Your task to perform on an android device: open the mobile data screen to see how much data has been used Image 0: 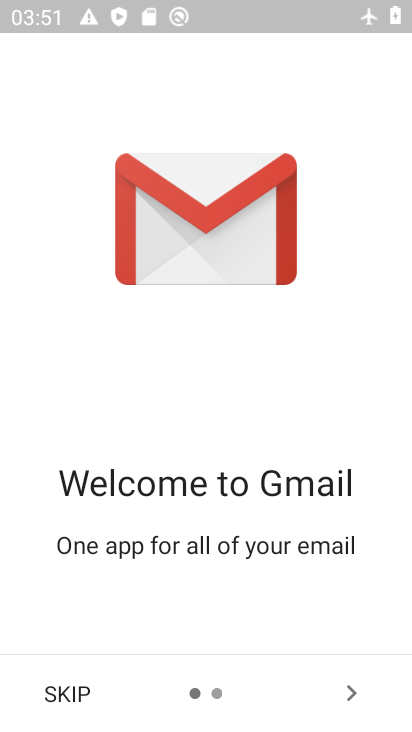
Step 0: press back button
Your task to perform on an android device: open the mobile data screen to see how much data has been used Image 1: 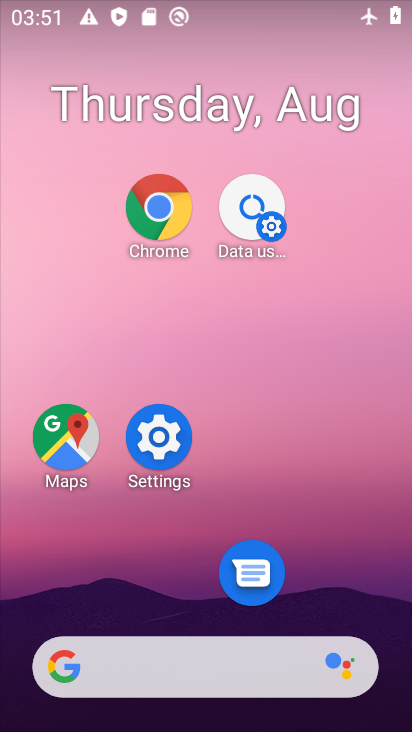
Step 1: drag from (210, 423) to (151, 176)
Your task to perform on an android device: open the mobile data screen to see how much data has been used Image 2: 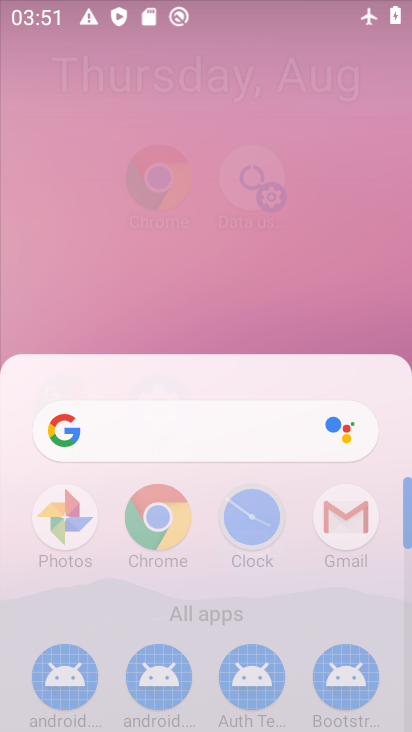
Step 2: drag from (179, 535) to (152, 159)
Your task to perform on an android device: open the mobile data screen to see how much data has been used Image 3: 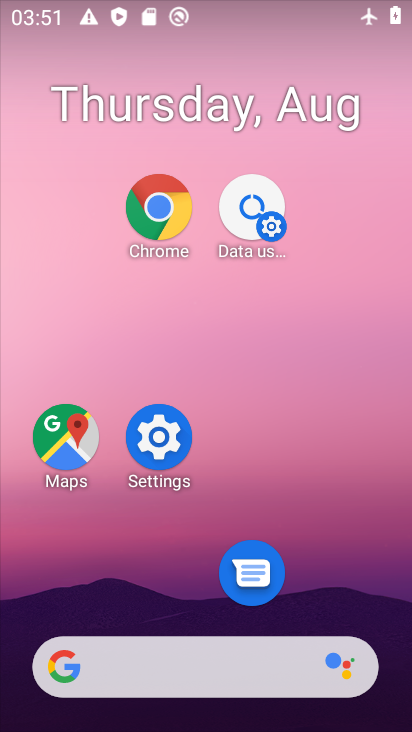
Step 3: drag from (190, 616) to (130, 228)
Your task to perform on an android device: open the mobile data screen to see how much data has been used Image 4: 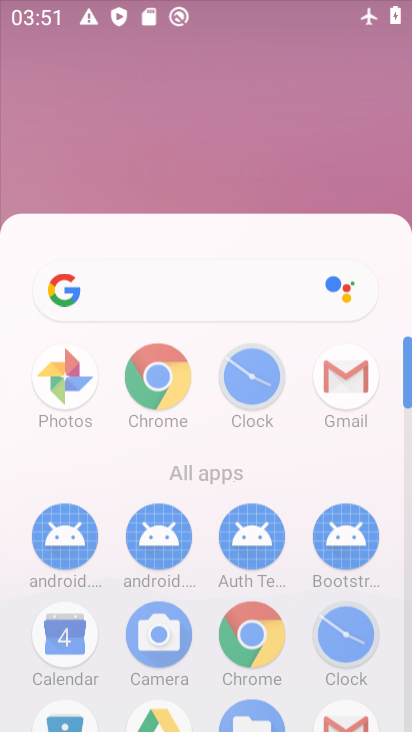
Step 4: drag from (143, 559) to (110, 437)
Your task to perform on an android device: open the mobile data screen to see how much data has been used Image 5: 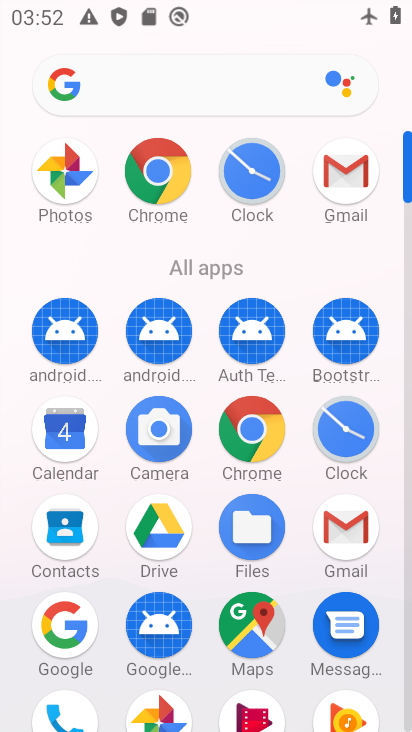
Step 5: drag from (188, 593) to (173, 119)
Your task to perform on an android device: open the mobile data screen to see how much data has been used Image 6: 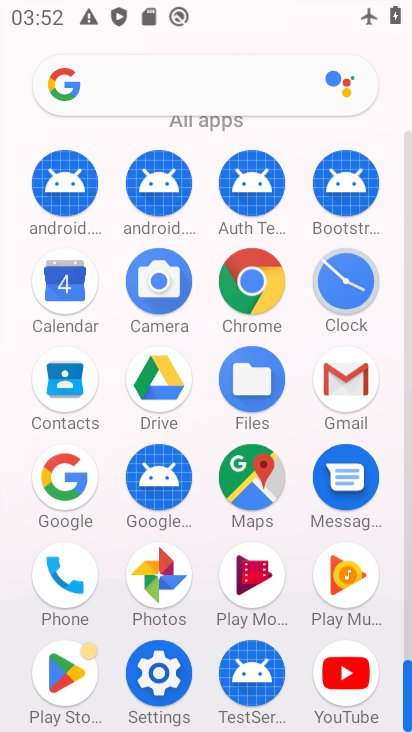
Step 6: click (208, 231)
Your task to perform on an android device: open the mobile data screen to see how much data has been used Image 7: 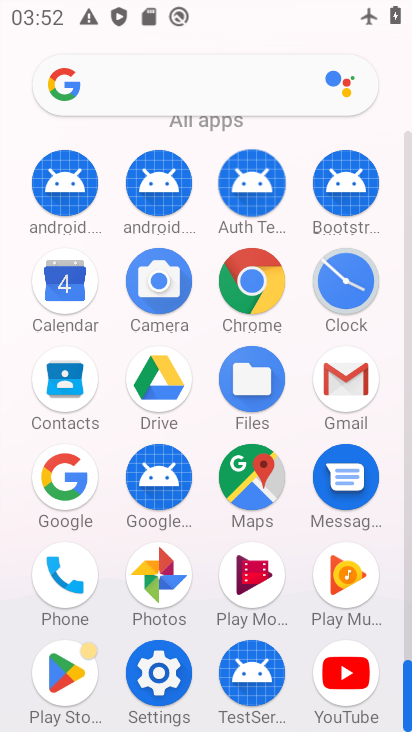
Step 7: drag from (188, 489) to (180, 124)
Your task to perform on an android device: open the mobile data screen to see how much data has been used Image 8: 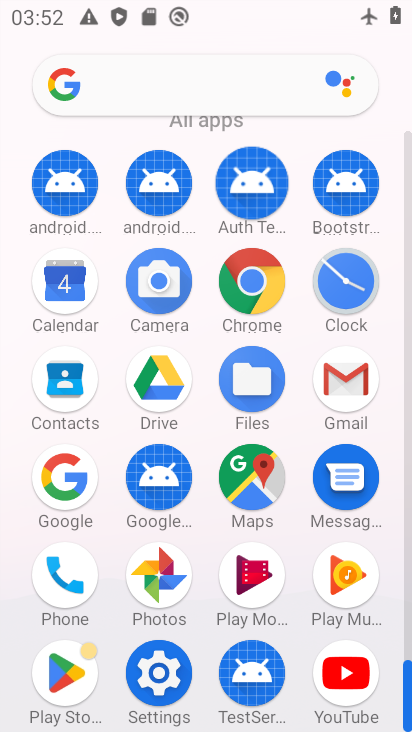
Step 8: click (158, 686)
Your task to perform on an android device: open the mobile data screen to see how much data has been used Image 9: 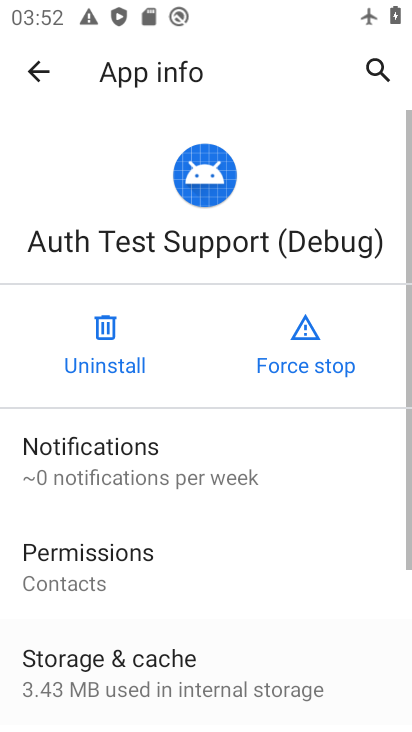
Step 9: click (158, 686)
Your task to perform on an android device: open the mobile data screen to see how much data has been used Image 10: 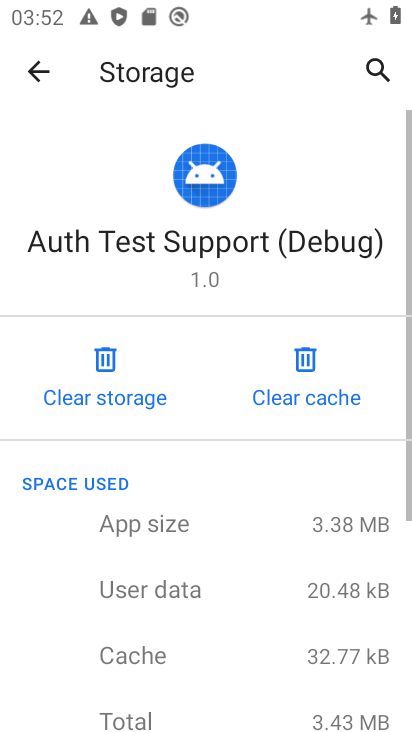
Step 10: click (25, 74)
Your task to perform on an android device: open the mobile data screen to see how much data has been used Image 11: 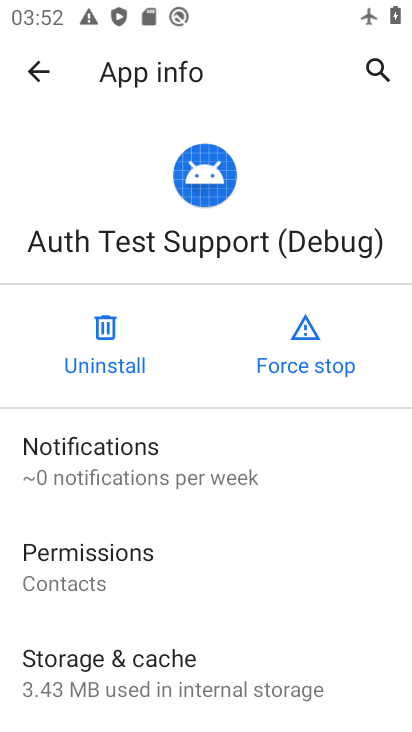
Step 11: click (33, 66)
Your task to perform on an android device: open the mobile data screen to see how much data has been used Image 12: 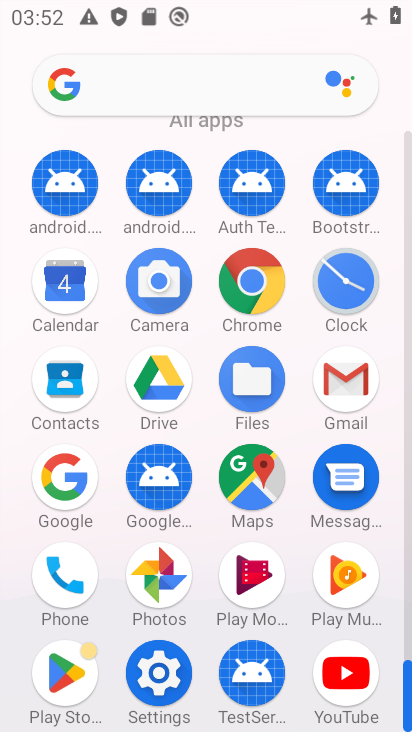
Step 12: click (154, 672)
Your task to perform on an android device: open the mobile data screen to see how much data has been used Image 13: 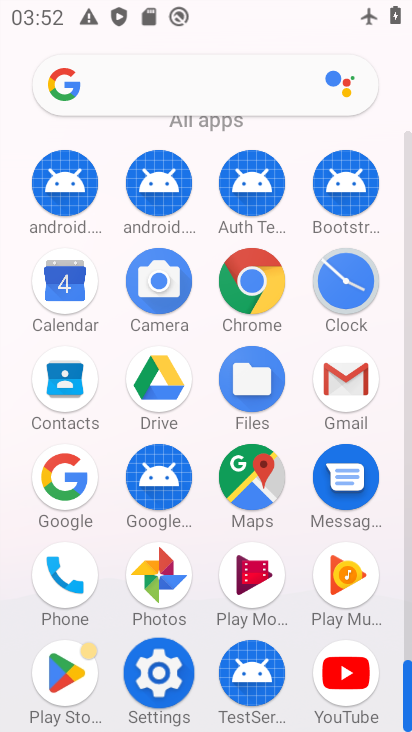
Step 13: click (154, 672)
Your task to perform on an android device: open the mobile data screen to see how much data has been used Image 14: 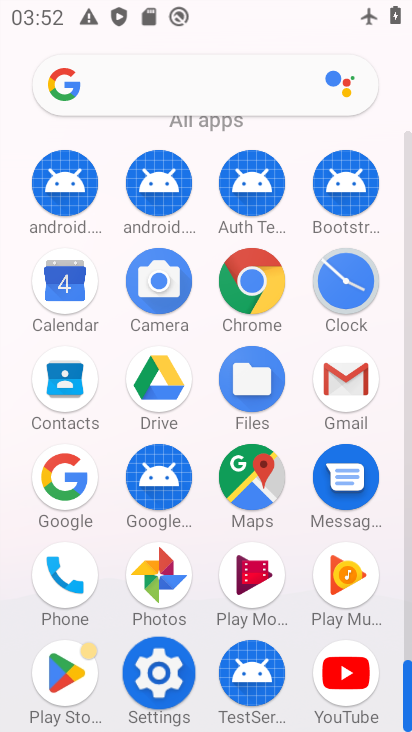
Step 14: click (154, 672)
Your task to perform on an android device: open the mobile data screen to see how much data has been used Image 15: 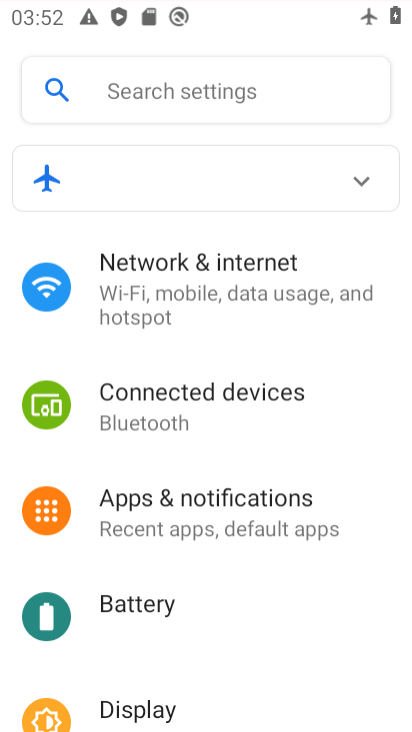
Step 15: click (154, 672)
Your task to perform on an android device: open the mobile data screen to see how much data has been used Image 16: 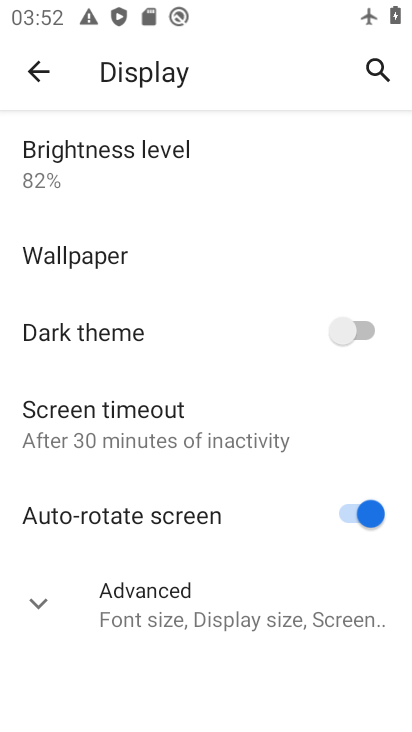
Step 16: click (28, 59)
Your task to perform on an android device: open the mobile data screen to see how much data has been used Image 17: 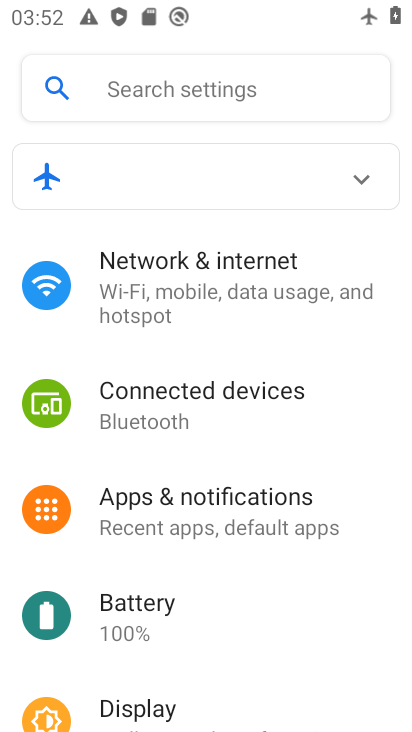
Step 17: click (175, 291)
Your task to perform on an android device: open the mobile data screen to see how much data has been used Image 18: 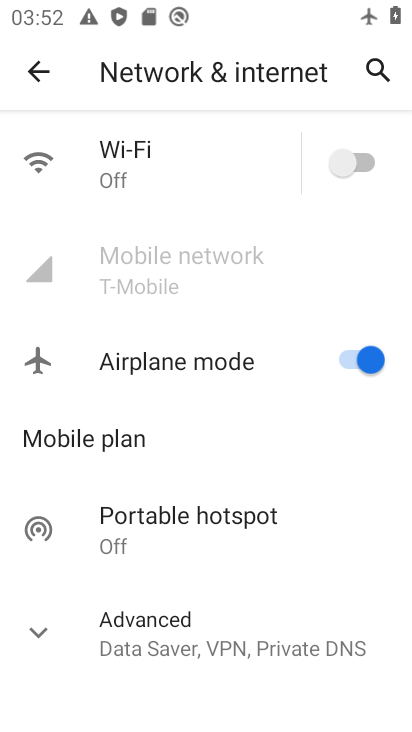
Step 18: click (367, 353)
Your task to perform on an android device: open the mobile data screen to see how much data has been used Image 19: 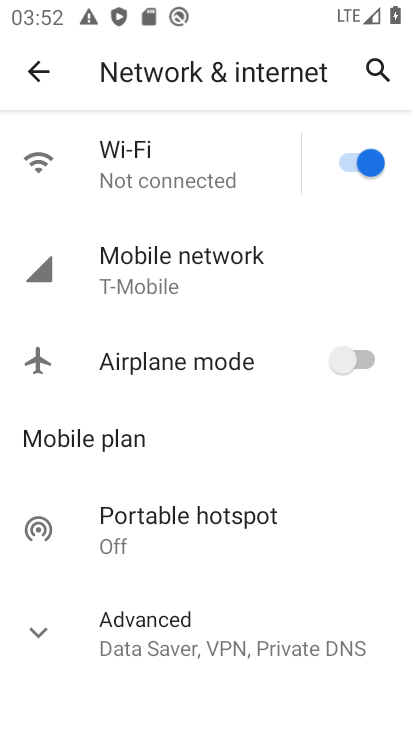
Step 19: click (166, 266)
Your task to perform on an android device: open the mobile data screen to see how much data has been used Image 20: 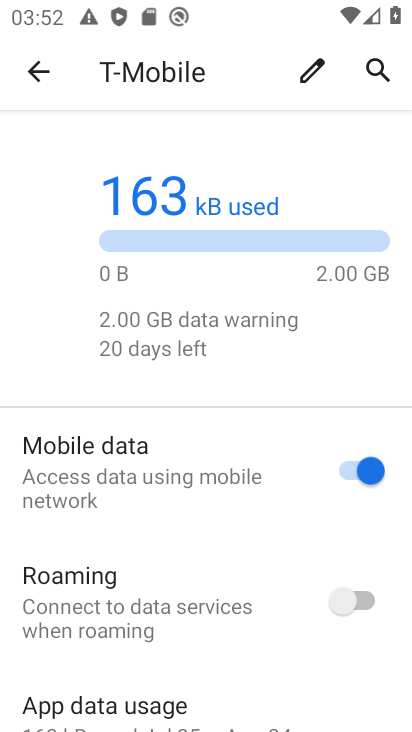
Step 20: task complete